Your task to perform on an android device: open chrome privacy settings Image 0: 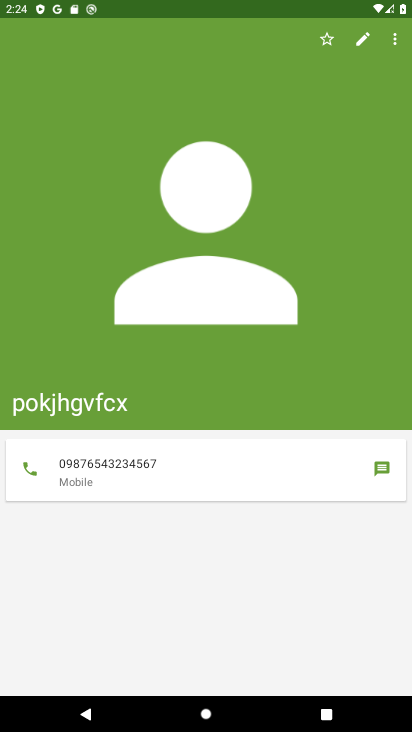
Step 0: press home button
Your task to perform on an android device: open chrome privacy settings Image 1: 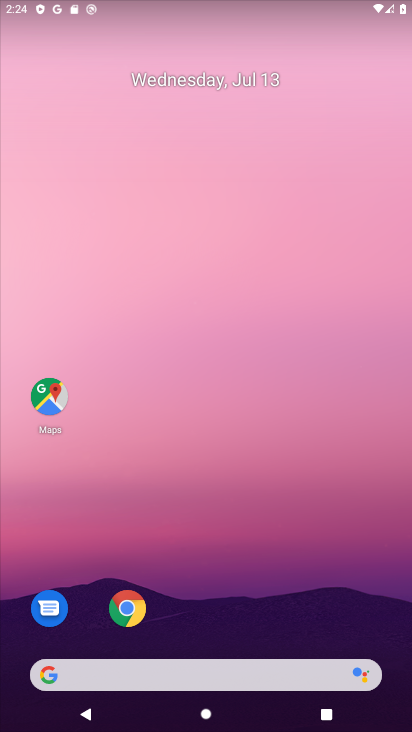
Step 1: click (128, 617)
Your task to perform on an android device: open chrome privacy settings Image 2: 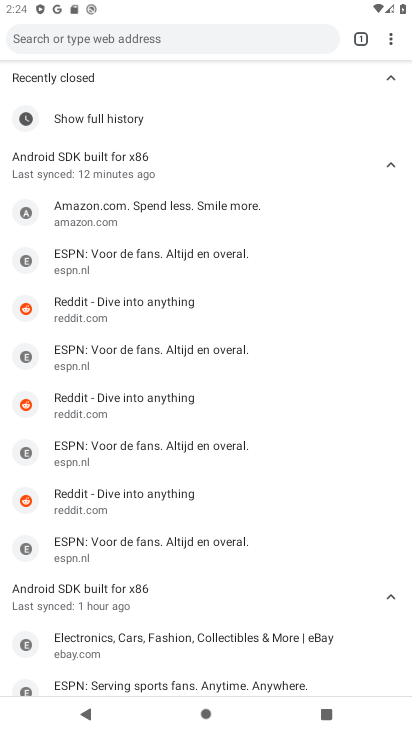
Step 2: click (398, 34)
Your task to perform on an android device: open chrome privacy settings Image 3: 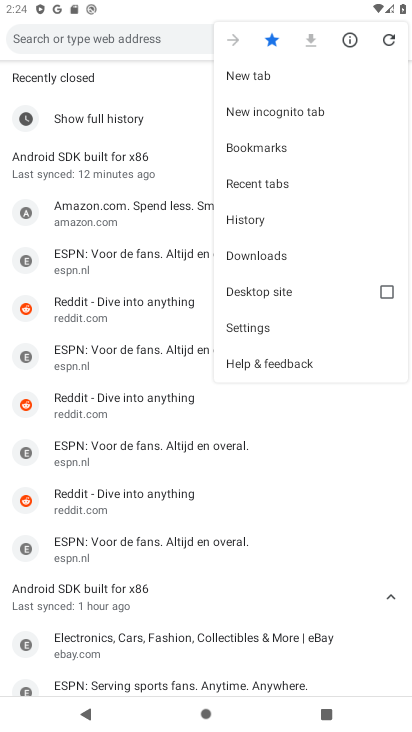
Step 3: click (254, 340)
Your task to perform on an android device: open chrome privacy settings Image 4: 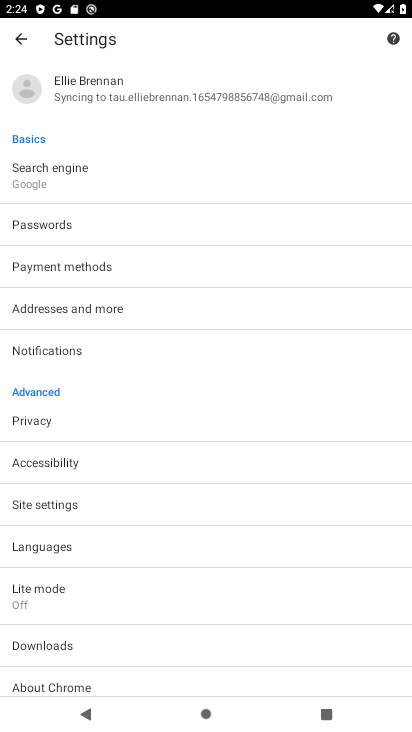
Step 4: drag from (85, 619) to (115, 210)
Your task to perform on an android device: open chrome privacy settings Image 5: 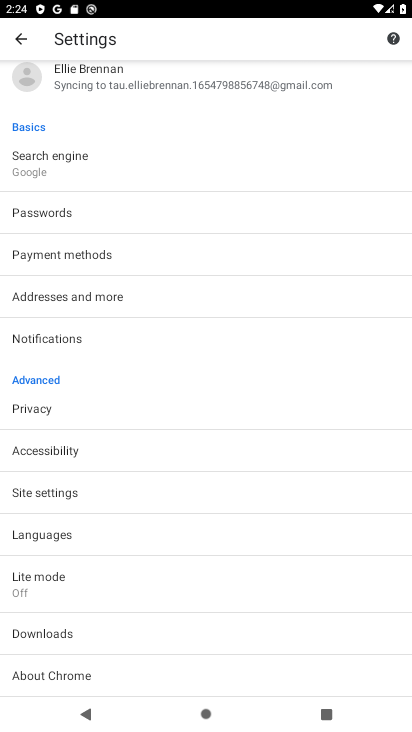
Step 5: drag from (74, 657) to (132, 211)
Your task to perform on an android device: open chrome privacy settings Image 6: 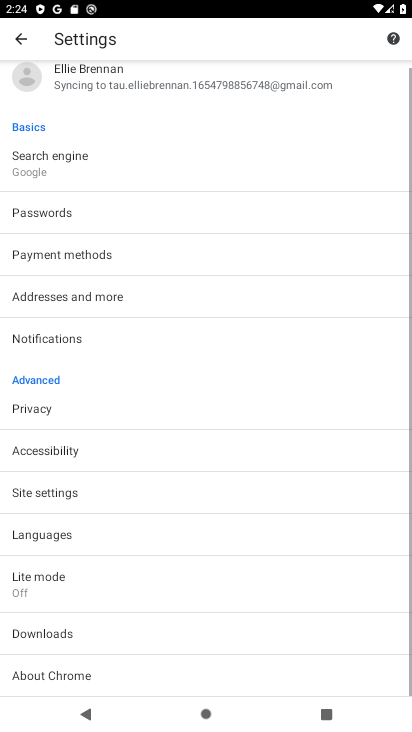
Step 6: click (65, 417)
Your task to perform on an android device: open chrome privacy settings Image 7: 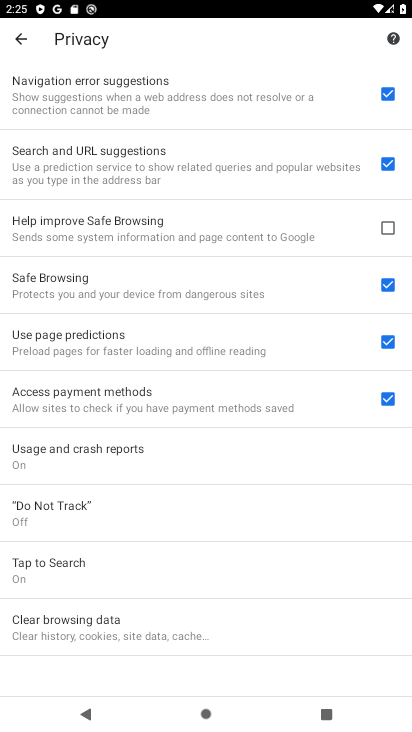
Step 7: task complete